Your task to perform on an android device: turn on showing notifications on the lock screen Image 0: 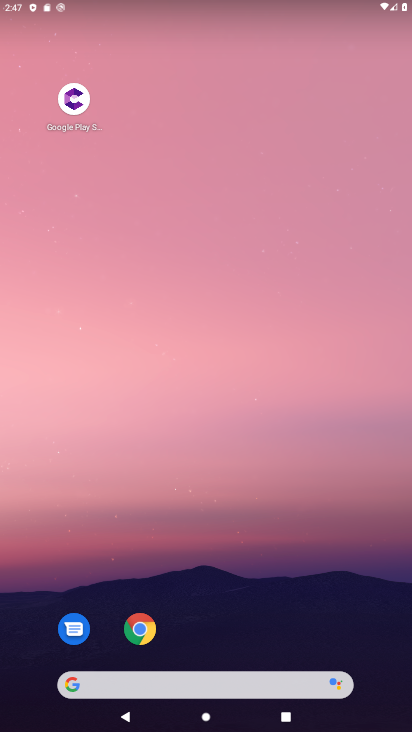
Step 0: drag from (240, 729) to (220, 73)
Your task to perform on an android device: turn on showing notifications on the lock screen Image 1: 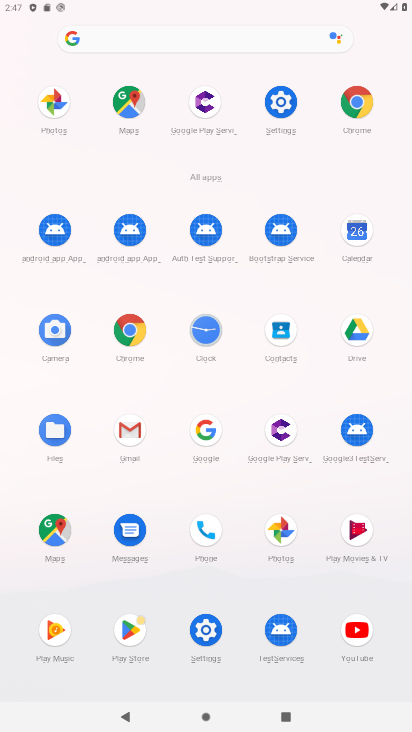
Step 1: click (200, 632)
Your task to perform on an android device: turn on showing notifications on the lock screen Image 2: 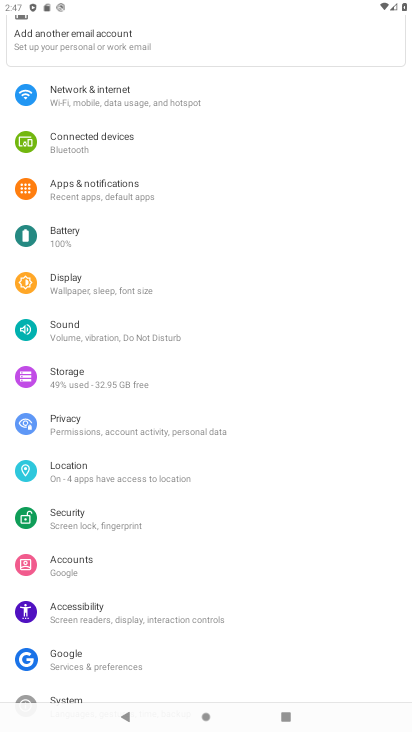
Step 2: click (90, 190)
Your task to perform on an android device: turn on showing notifications on the lock screen Image 3: 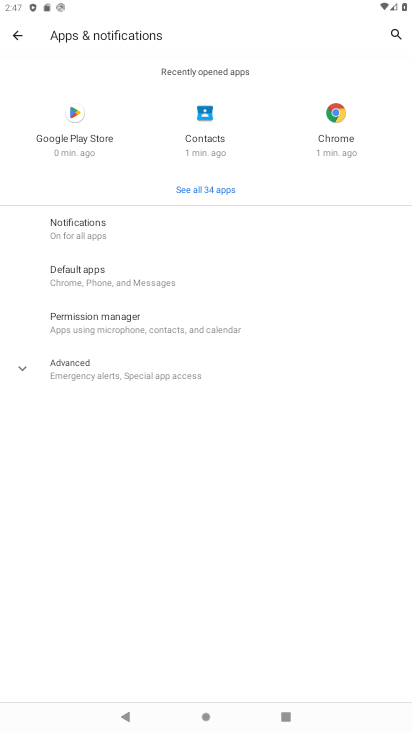
Step 3: click (76, 230)
Your task to perform on an android device: turn on showing notifications on the lock screen Image 4: 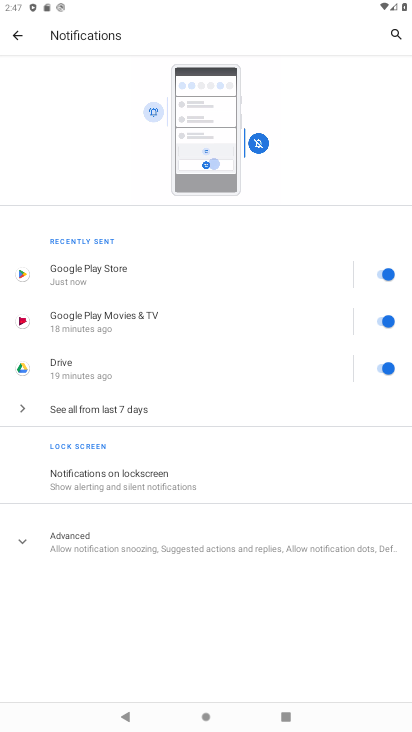
Step 4: click (102, 475)
Your task to perform on an android device: turn on showing notifications on the lock screen Image 5: 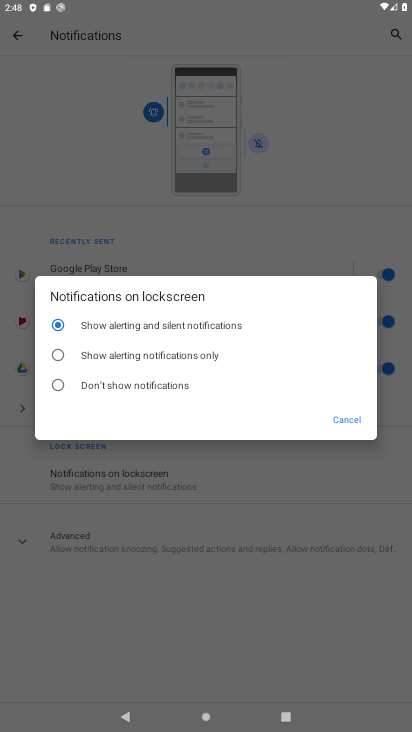
Step 5: click (354, 416)
Your task to perform on an android device: turn on showing notifications on the lock screen Image 6: 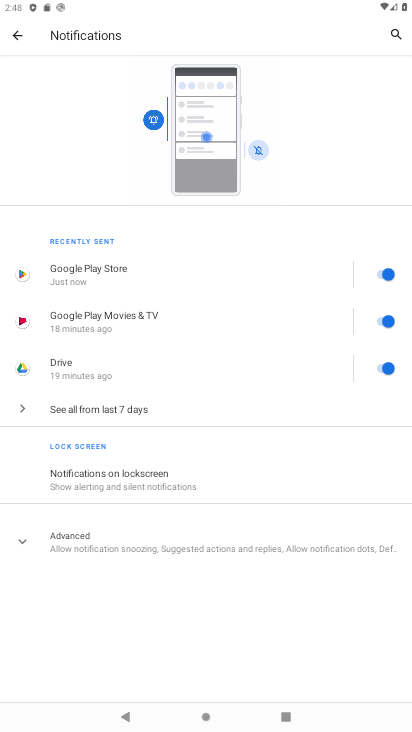
Step 6: task complete